Your task to perform on an android device: turn on the 24-hour format for clock Image 0: 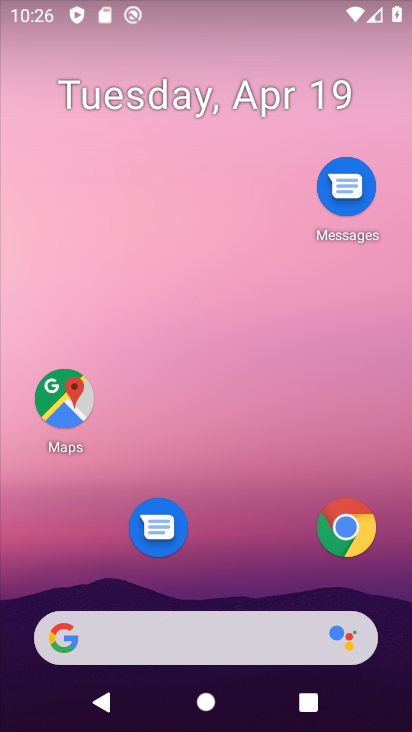
Step 0: drag from (248, 471) to (222, 61)
Your task to perform on an android device: turn on the 24-hour format for clock Image 1: 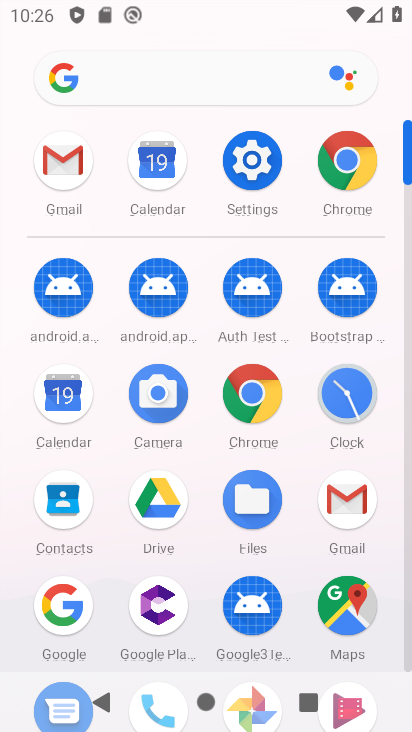
Step 1: click (353, 410)
Your task to perform on an android device: turn on the 24-hour format for clock Image 2: 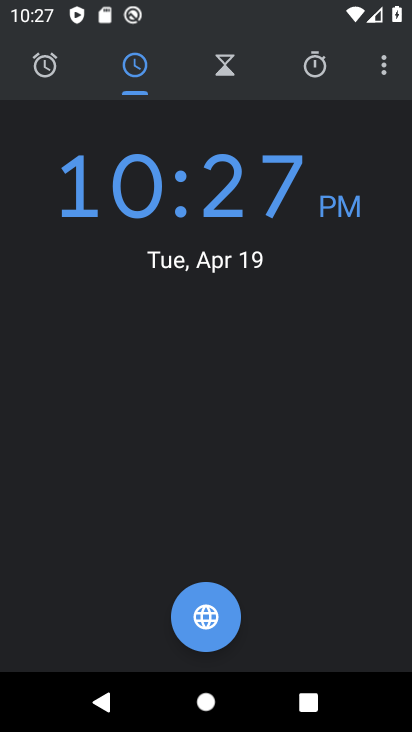
Step 2: click (384, 72)
Your task to perform on an android device: turn on the 24-hour format for clock Image 3: 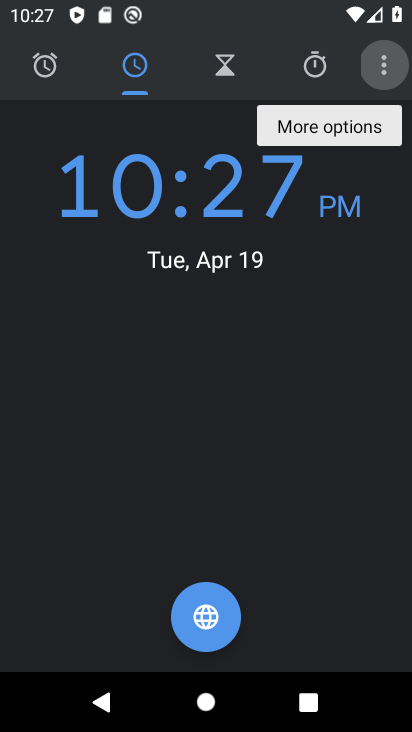
Step 3: click (381, 67)
Your task to perform on an android device: turn on the 24-hour format for clock Image 4: 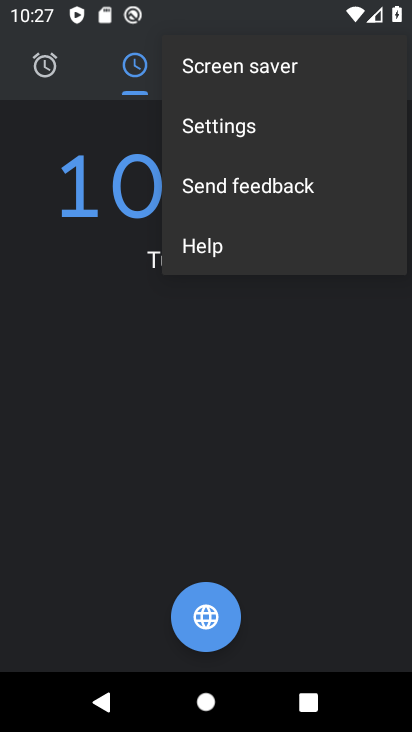
Step 4: click (271, 125)
Your task to perform on an android device: turn on the 24-hour format for clock Image 5: 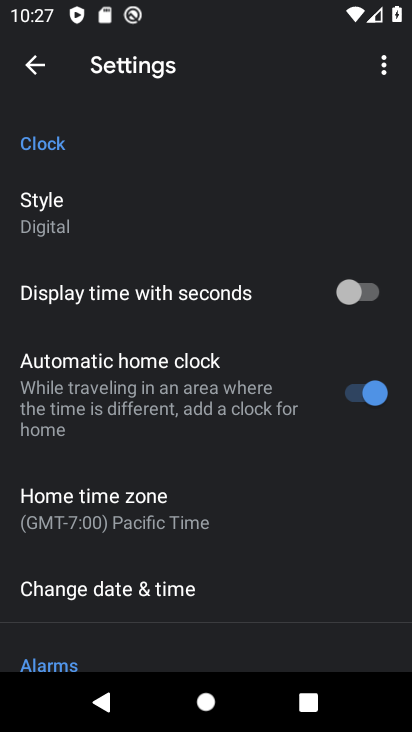
Step 5: drag from (240, 601) to (258, 308)
Your task to perform on an android device: turn on the 24-hour format for clock Image 6: 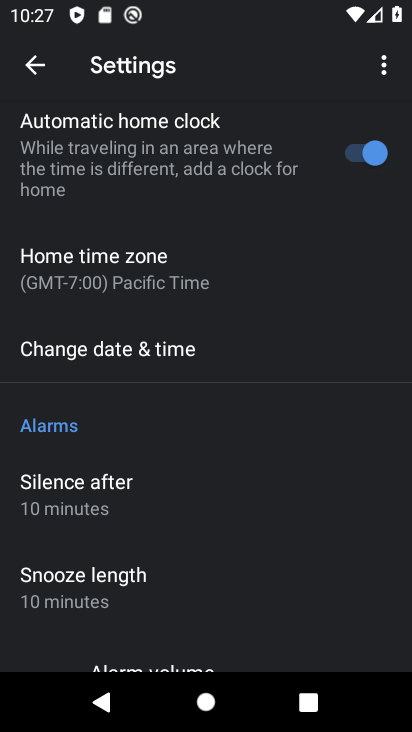
Step 6: drag from (197, 611) to (201, 532)
Your task to perform on an android device: turn on the 24-hour format for clock Image 7: 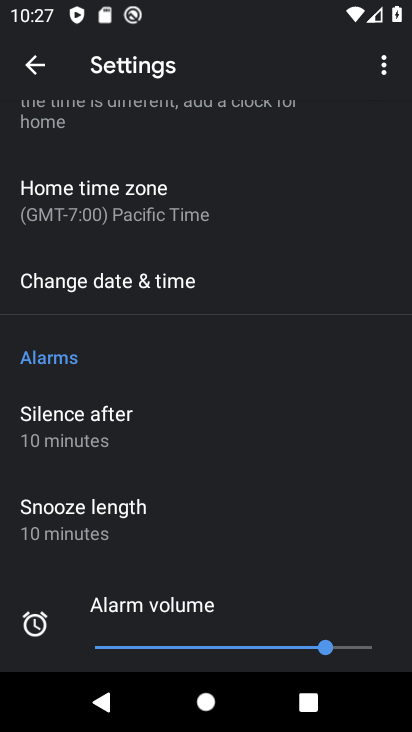
Step 7: click (116, 281)
Your task to perform on an android device: turn on the 24-hour format for clock Image 8: 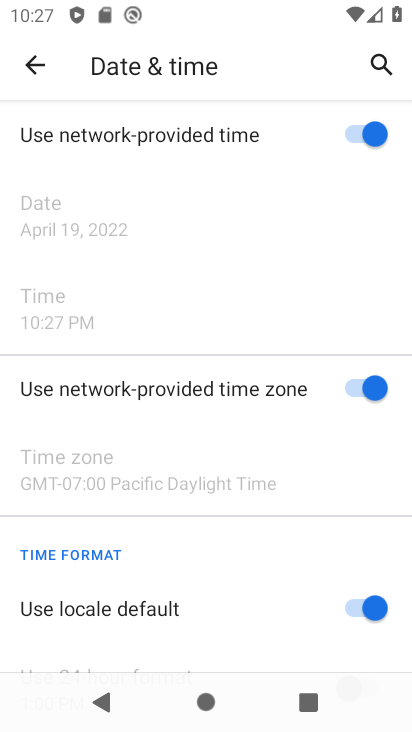
Step 8: drag from (184, 598) to (186, 270)
Your task to perform on an android device: turn on the 24-hour format for clock Image 9: 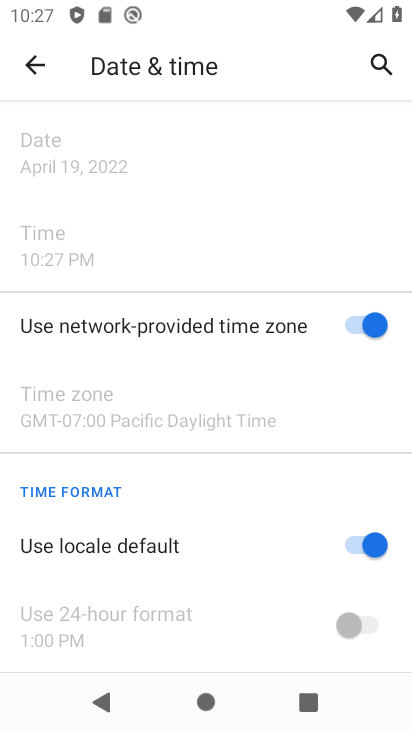
Step 9: click (368, 543)
Your task to perform on an android device: turn on the 24-hour format for clock Image 10: 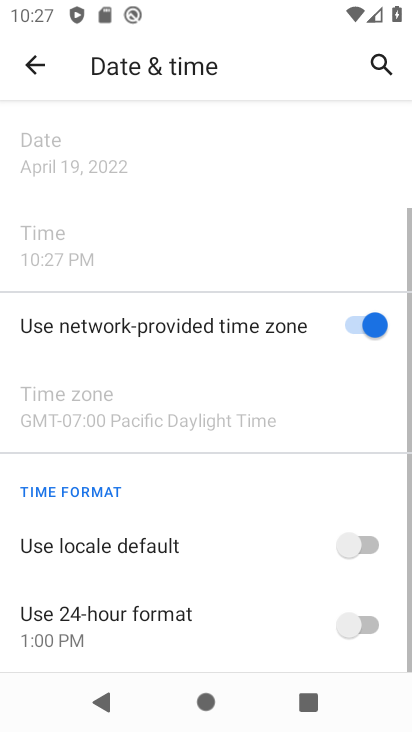
Step 10: click (347, 628)
Your task to perform on an android device: turn on the 24-hour format for clock Image 11: 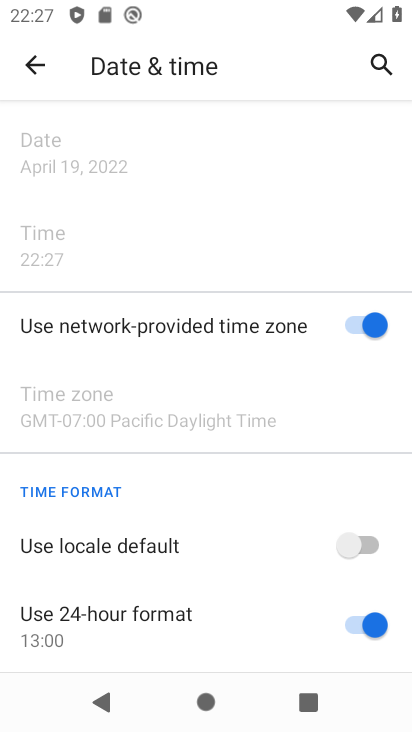
Step 11: task complete